Your task to perform on an android device: Search for vegetarian restaurants on Maps Image 0: 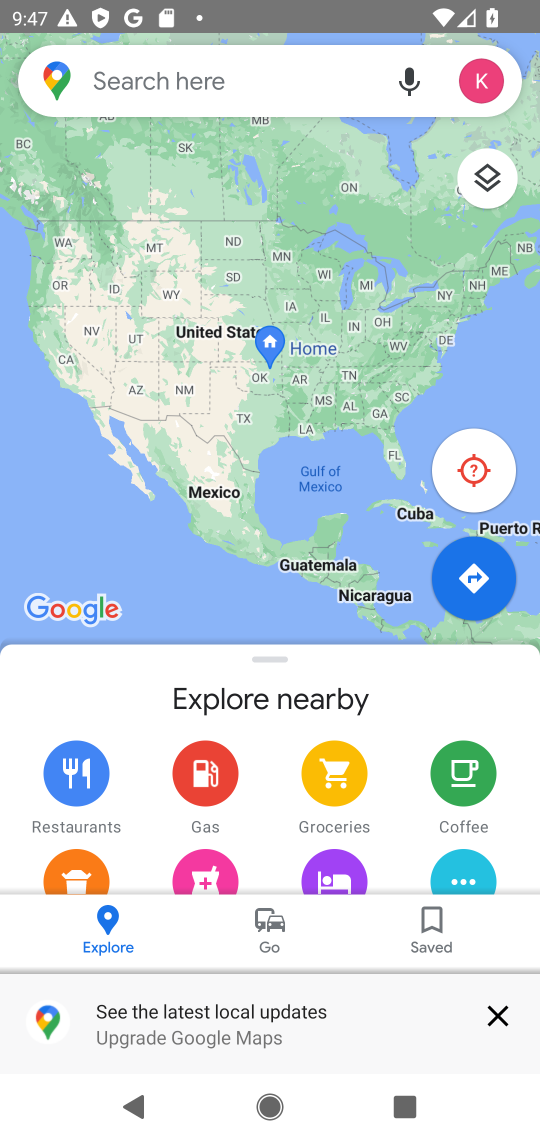
Step 0: click (128, 72)
Your task to perform on an android device: Search for vegetarian restaurants on Maps Image 1: 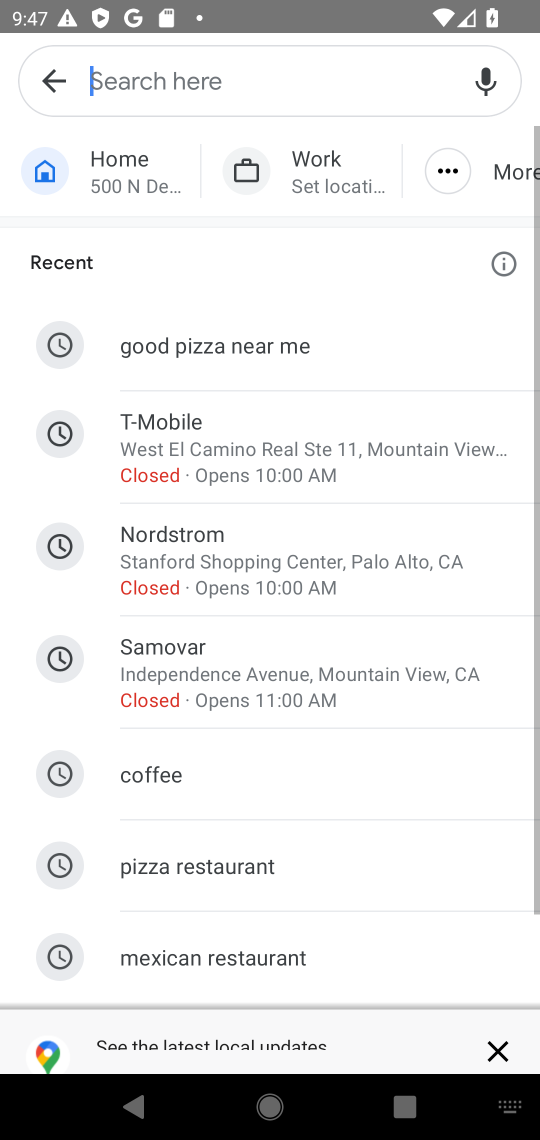
Step 1: type "vegetarian restaurants on Maps"
Your task to perform on an android device: Search for vegetarian restaurants on Maps Image 2: 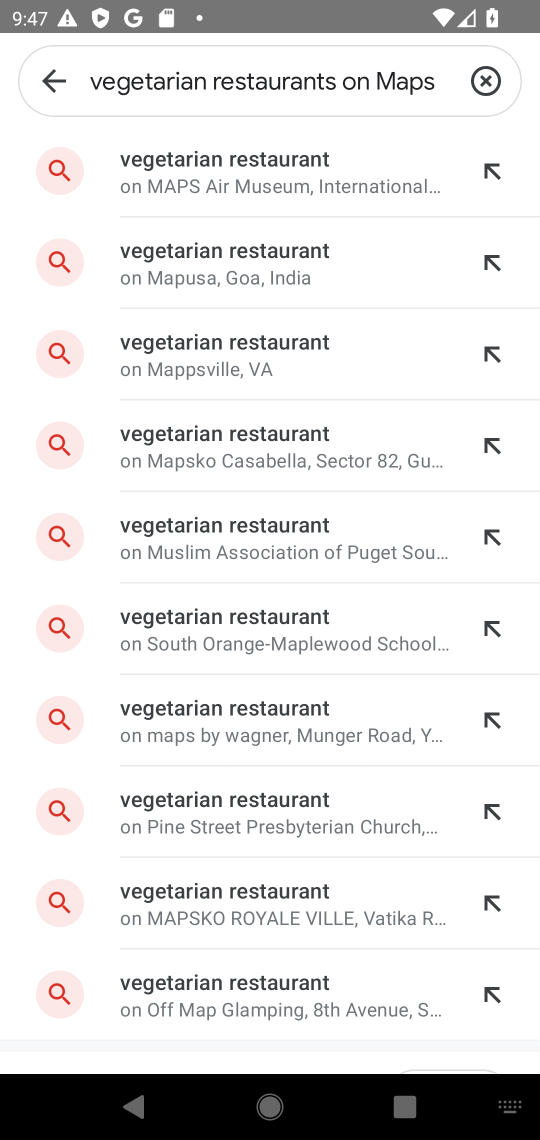
Step 2: click (252, 180)
Your task to perform on an android device: Search for vegetarian restaurants on Maps Image 3: 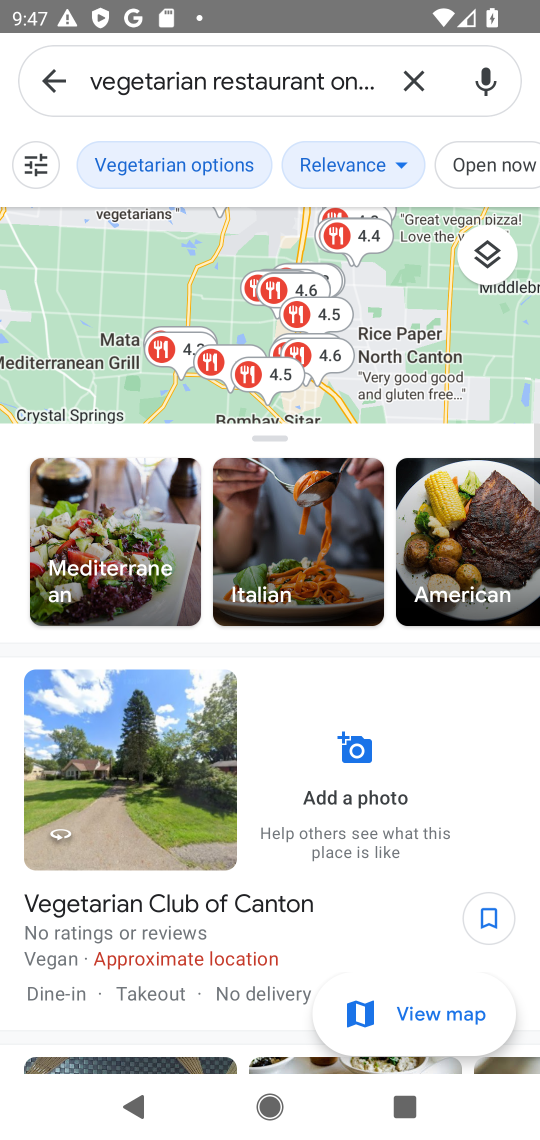
Step 3: task complete